Your task to perform on an android device: Open internet settings Image 0: 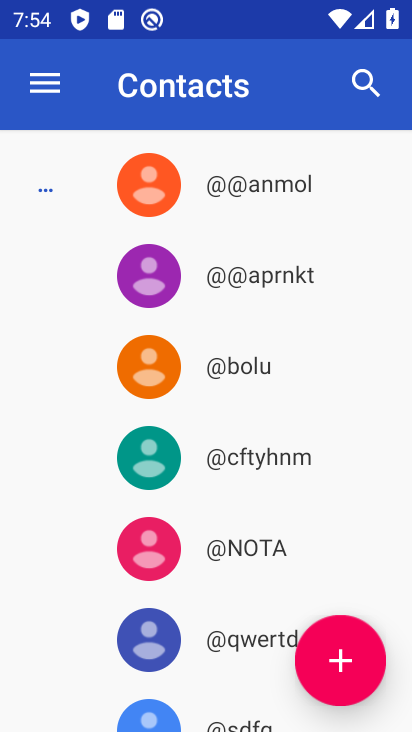
Step 0: press back button
Your task to perform on an android device: Open internet settings Image 1: 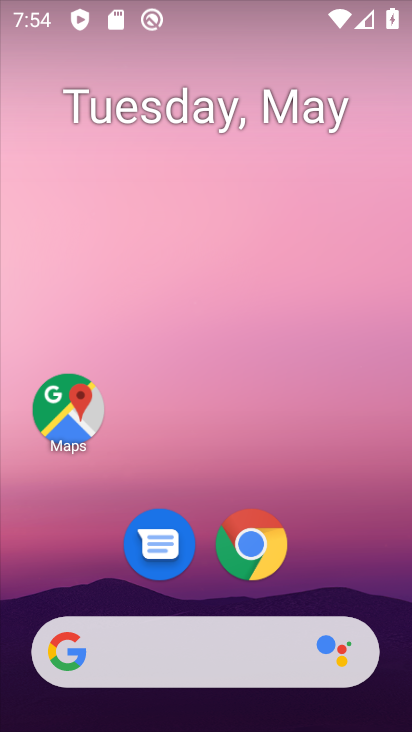
Step 1: drag from (333, 547) to (242, 186)
Your task to perform on an android device: Open internet settings Image 2: 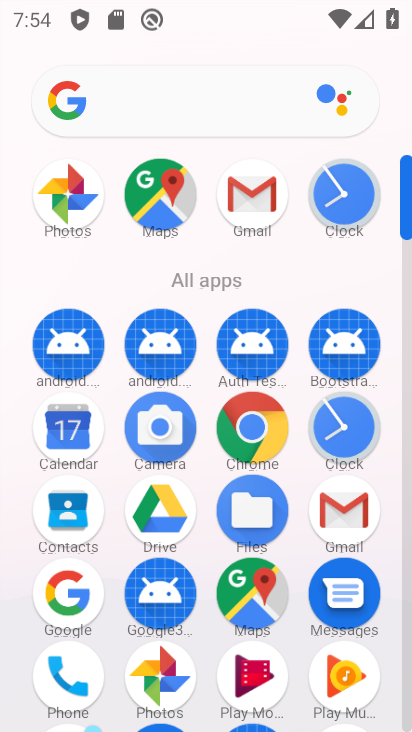
Step 2: drag from (205, 553) to (180, 258)
Your task to perform on an android device: Open internet settings Image 3: 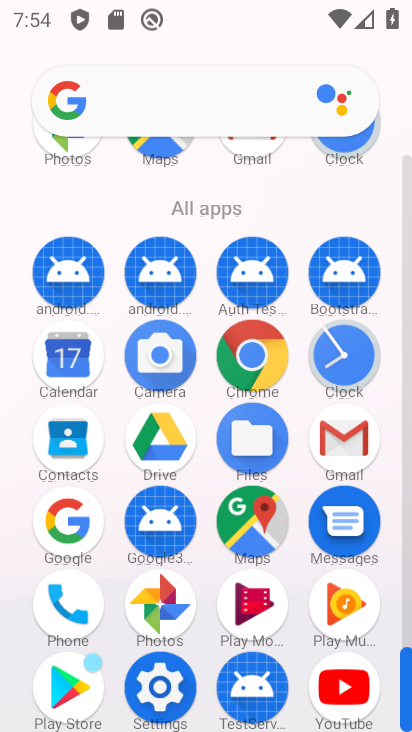
Step 3: click (160, 677)
Your task to perform on an android device: Open internet settings Image 4: 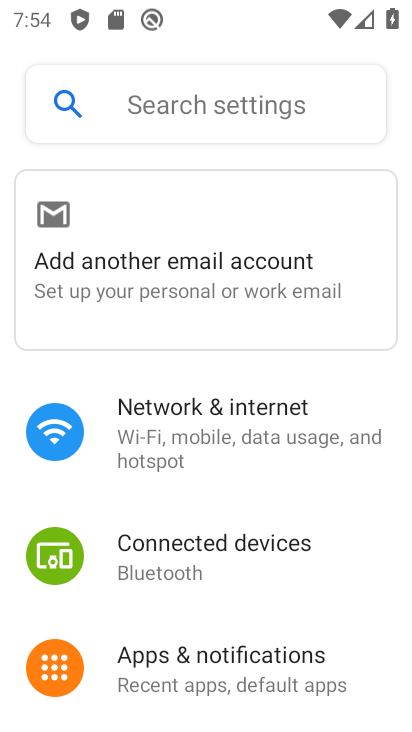
Step 4: click (211, 403)
Your task to perform on an android device: Open internet settings Image 5: 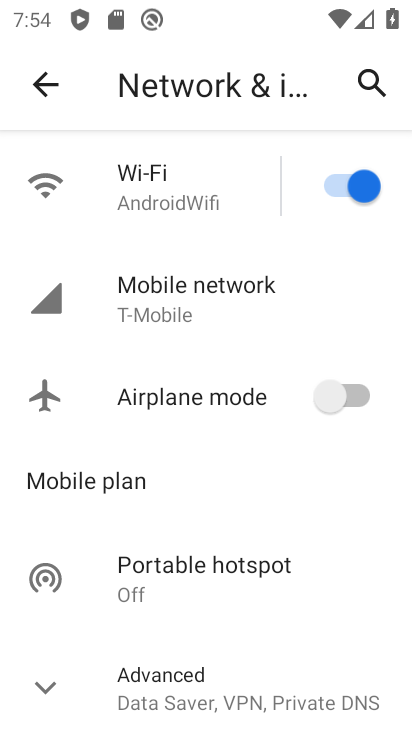
Step 5: click (159, 181)
Your task to perform on an android device: Open internet settings Image 6: 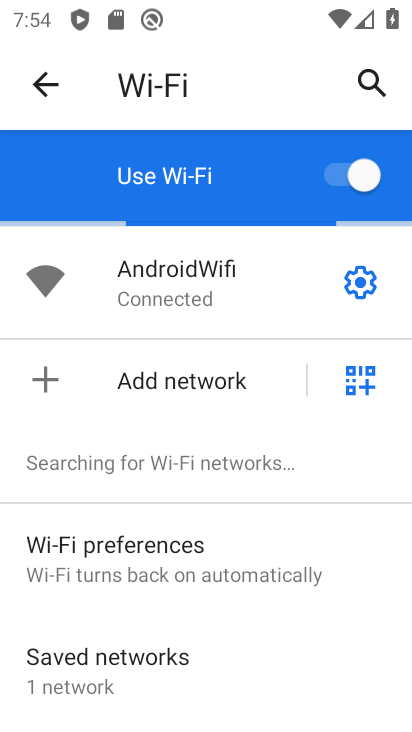
Step 6: task complete